Your task to perform on an android device: Open network settings Image 0: 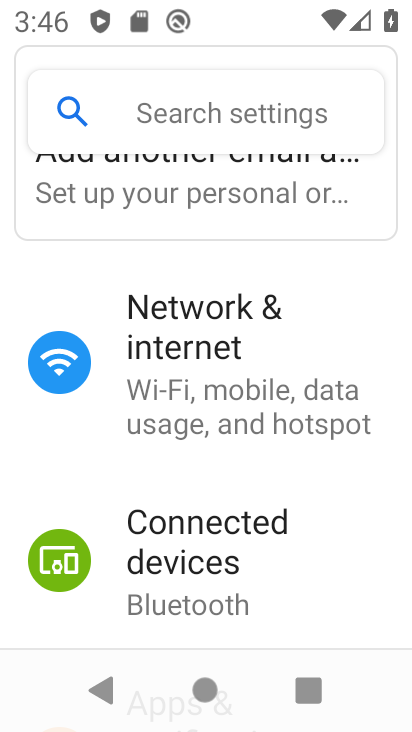
Step 0: click (247, 356)
Your task to perform on an android device: Open network settings Image 1: 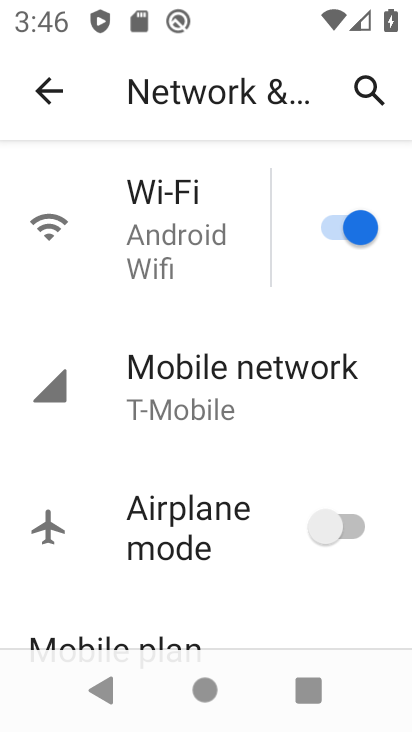
Step 1: task complete